Your task to perform on an android device: change the clock display to show seconds Image 0: 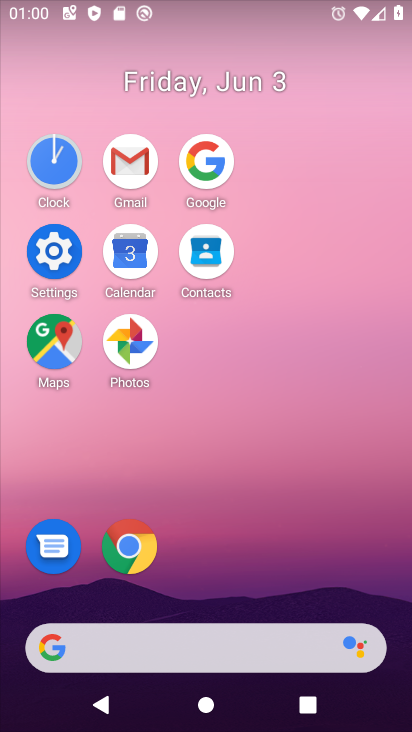
Step 0: click (52, 168)
Your task to perform on an android device: change the clock display to show seconds Image 1: 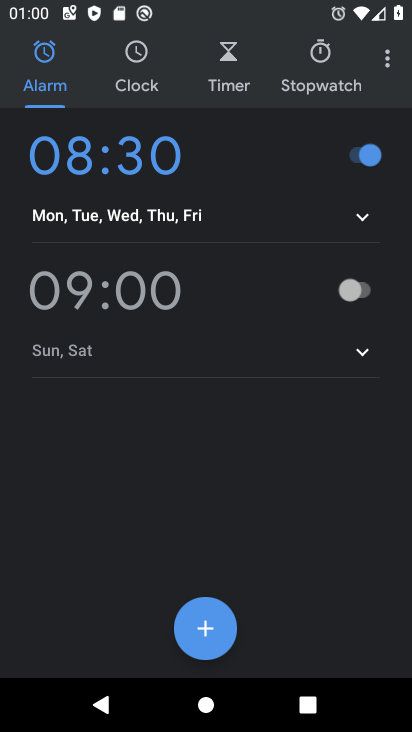
Step 1: click (395, 60)
Your task to perform on an android device: change the clock display to show seconds Image 2: 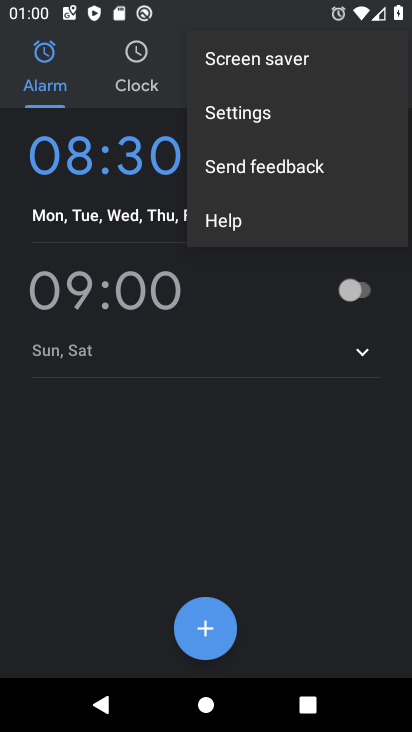
Step 2: click (278, 117)
Your task to perform on an android device: change the clock display to show seconds Image 3: 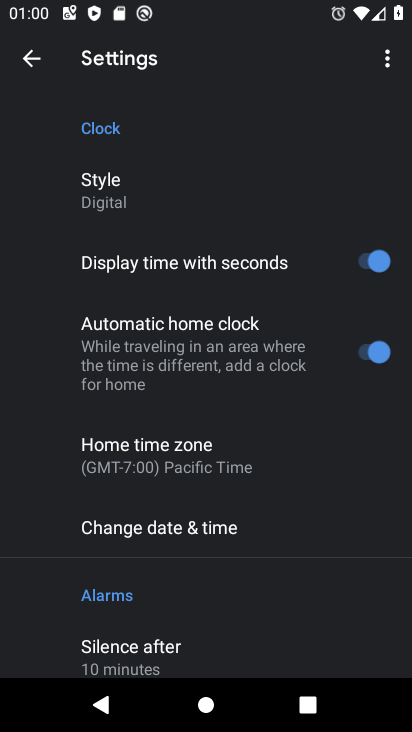
Step 3: click (328, 264)
Your task to perform on an android device: change the clock display to show seconds Image 4: 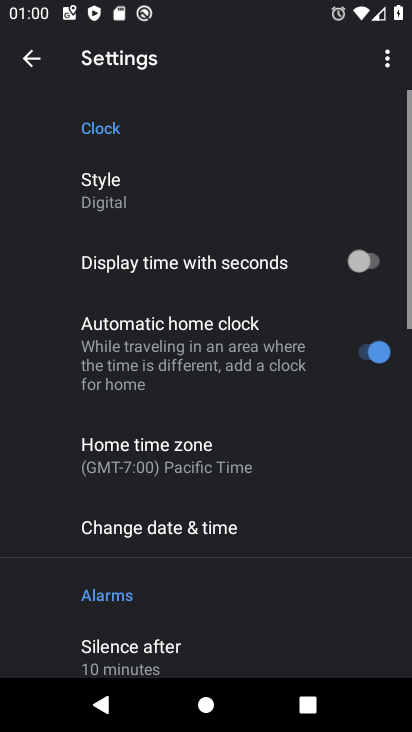
Step 4: task complete